Your task to perform on an android device: turn on priority inbox in the gmail app Image 0: 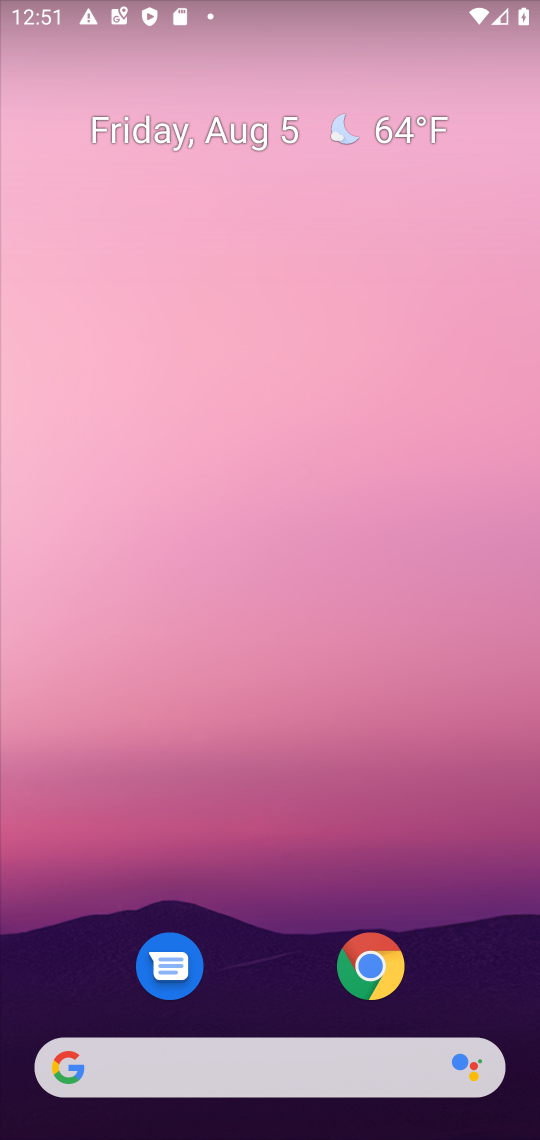
Step 0: drag from (305, 838) to (389, 28)
Your task to perform on an android device: turn on priority inbox in the gmail app Image 1: 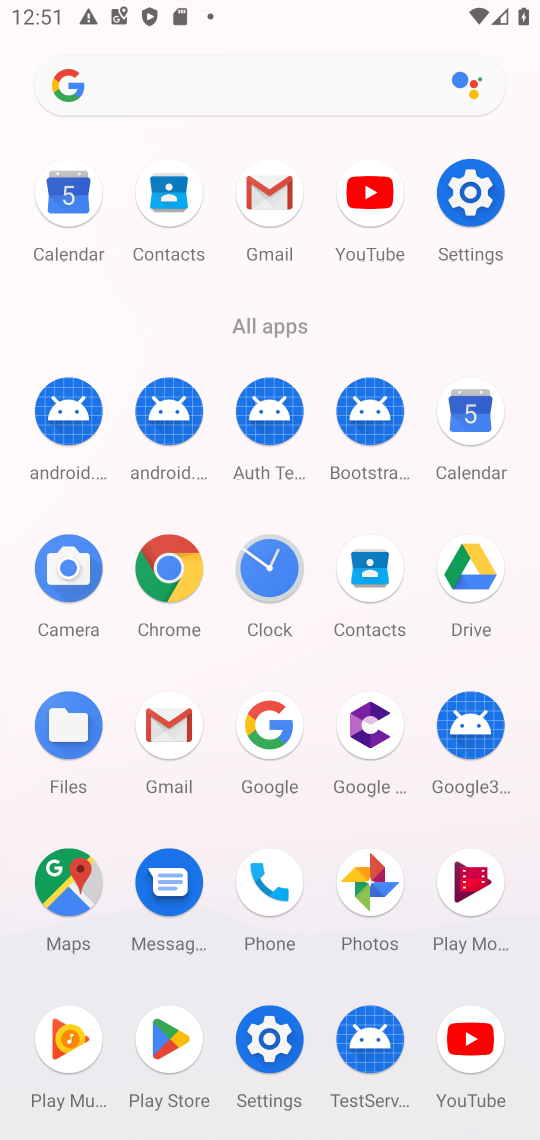
Step 1: click (274, 200)
Your task to perform on an android device: turn on priority inbox in the gmail app Image 2: 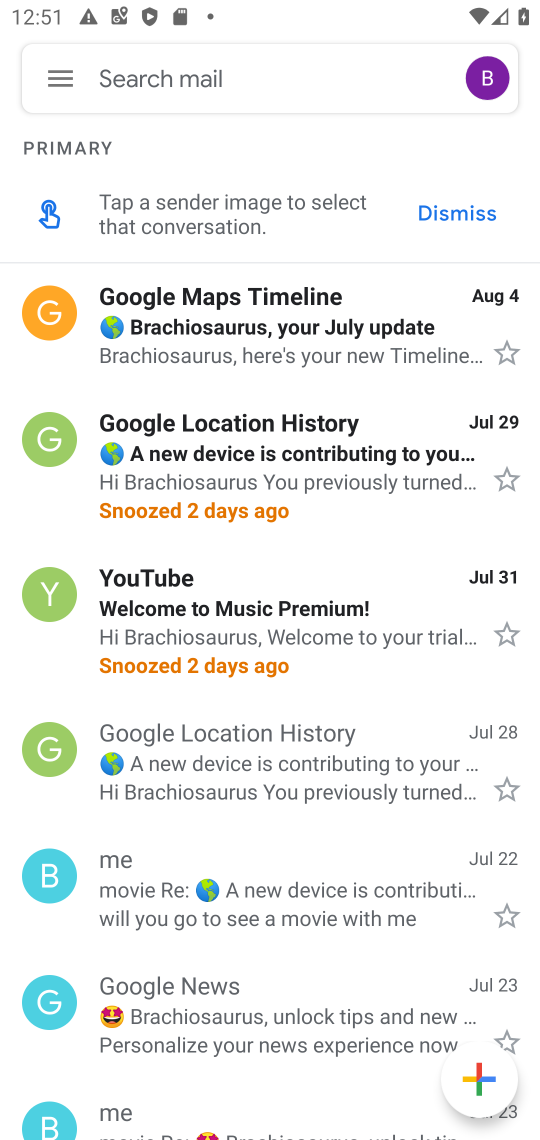
Step 2: click (61, 78)
Your task to perform on an android device: turn on priority inbox in the gmail app Image 3: 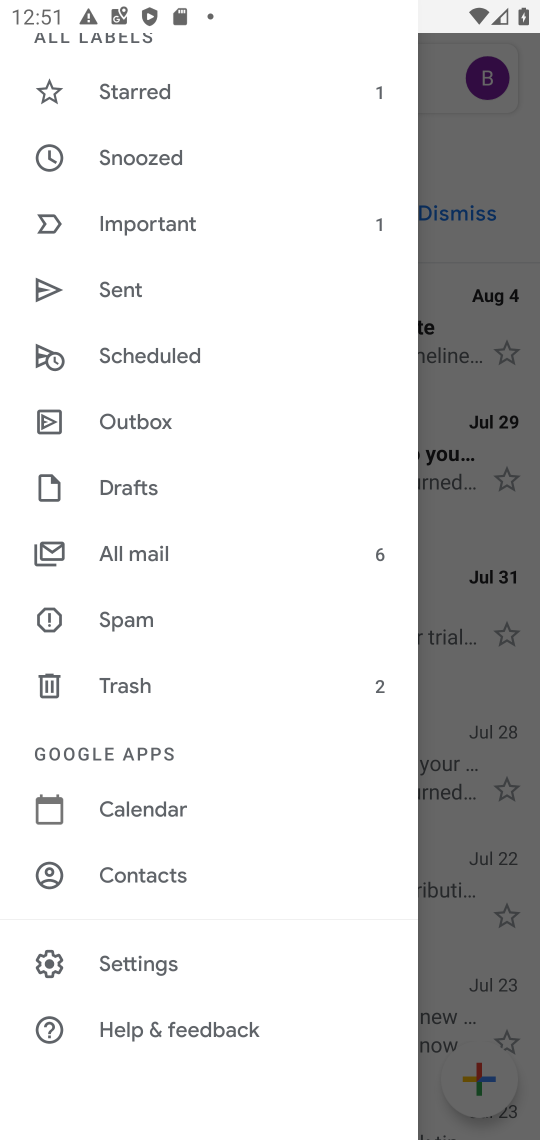
Step 3: click (124, 948)
Your task to perform on an android device: turn on priority inbox in the gmail app Image 4: 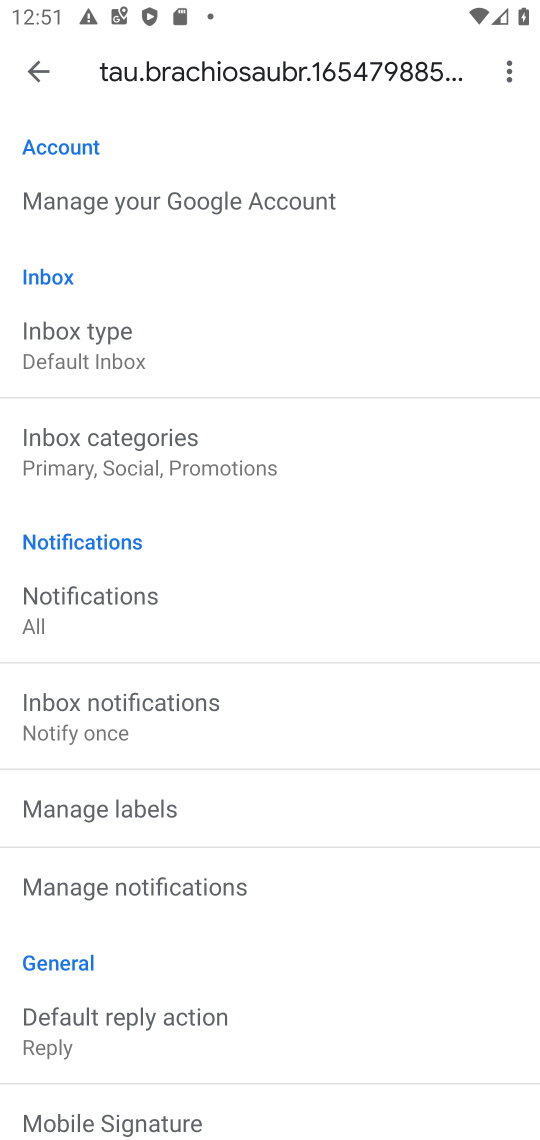
Step 4: click (126, 336)
Your task to perform on an android device: turn on priority inbox in the gmail app Image 5: 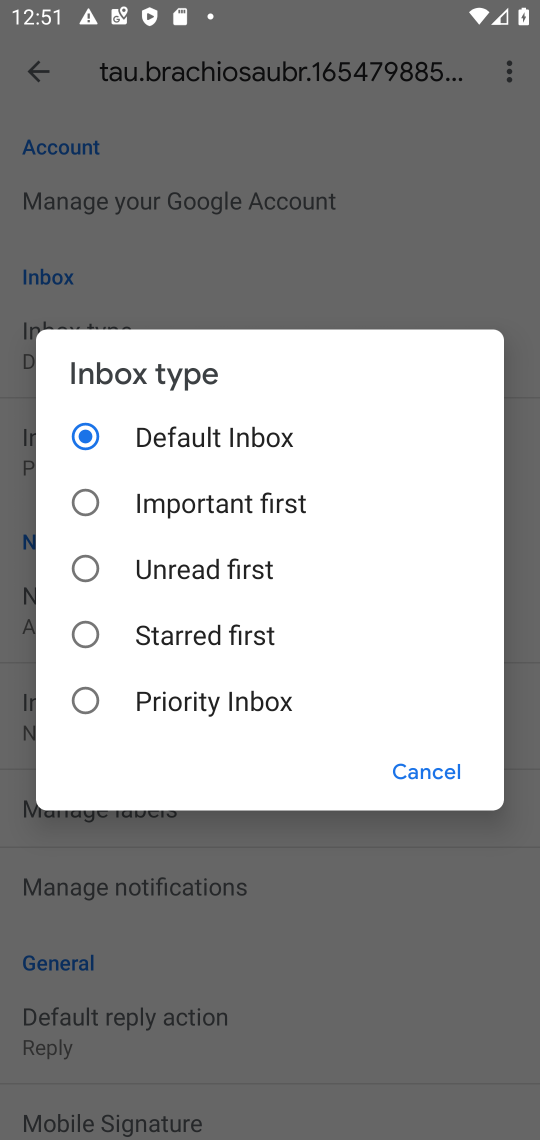
Step 5: click (88, 692)
Your task to perform on an android device: turn on priority inbox in the gmail app Image 6: 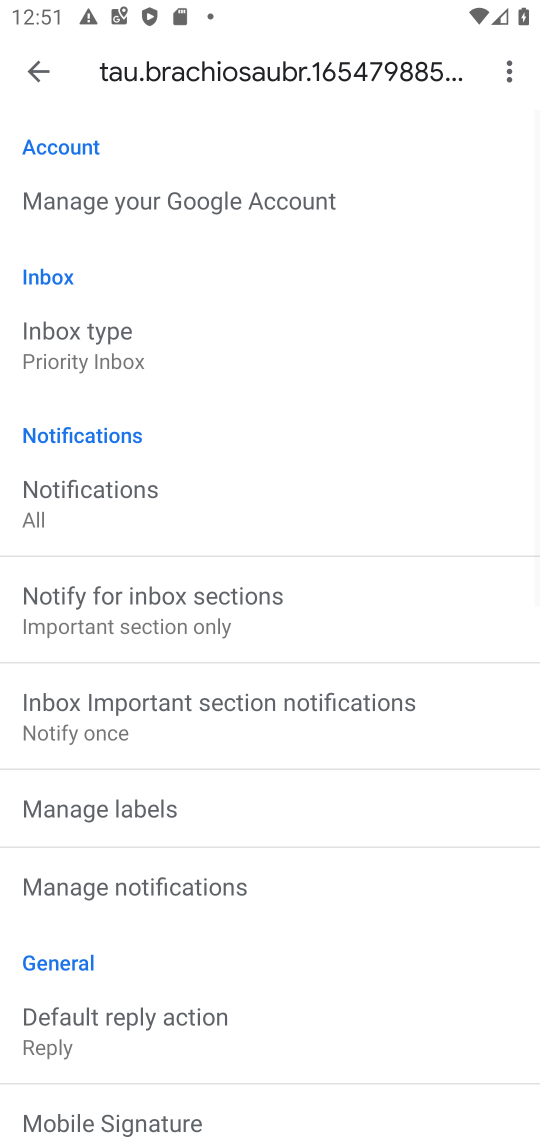
Step 6: task complete